Your task to perform on an android device: How much does a 3 bedroom apartment rent for in Washington DC? Image 0: 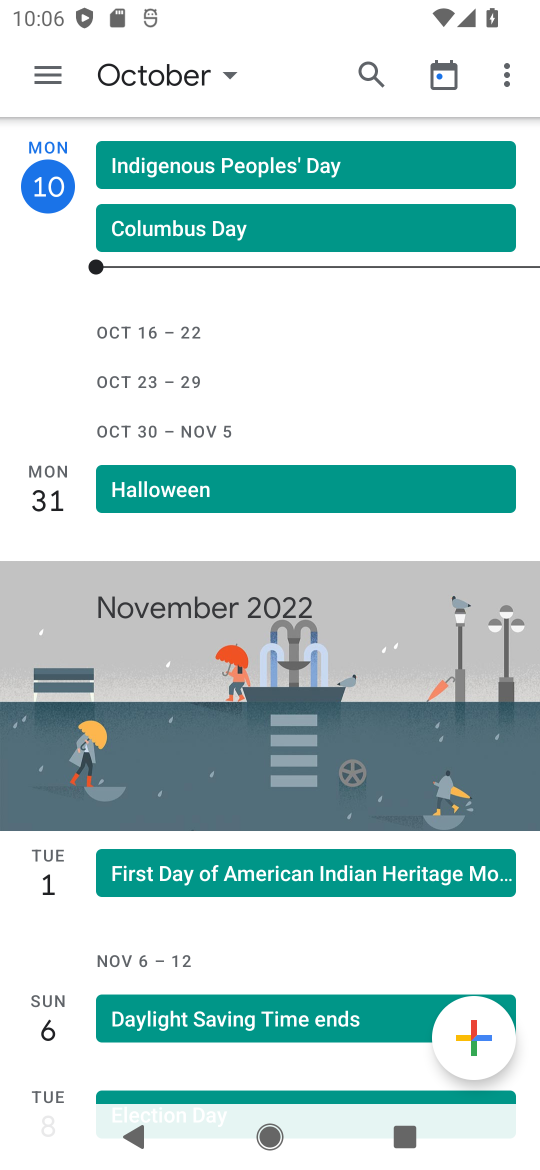
Step 0: press home button
Your task to perform on an android device: How much does a 3 bedroom apartment rent for in Washington DC? Image 1: 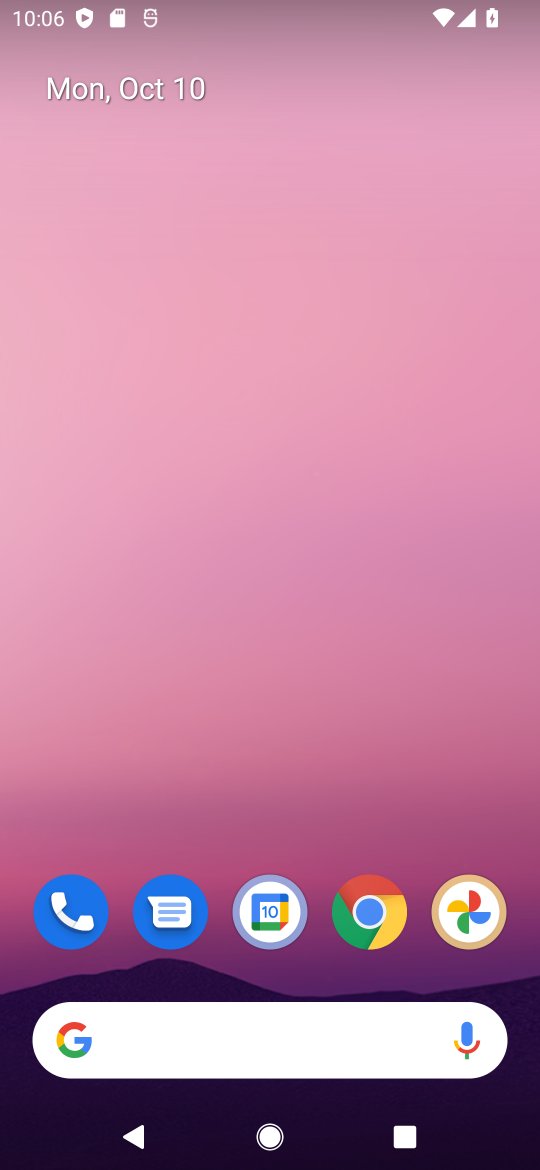
Step 1: click (71, 1037)
Your task to perform on an android device: How much does a 3 bedroom apartment rent for in Washington DC? Image 2: 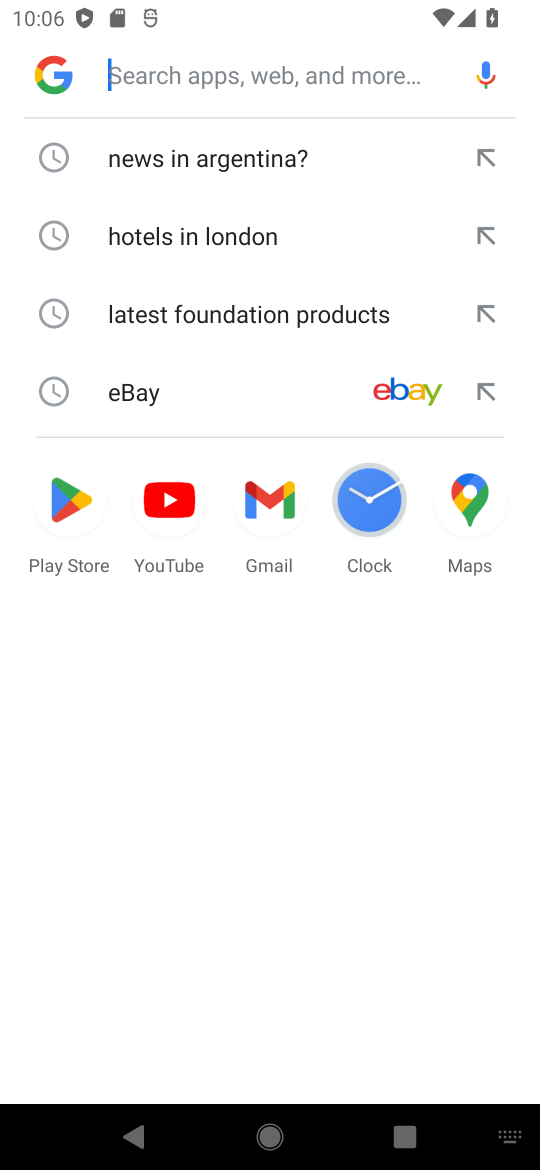
Step 2: click (224, 91)
Your task to perform on an android device: How much does a 3 bedroom apartment rent for in Washington DC? Image 3: 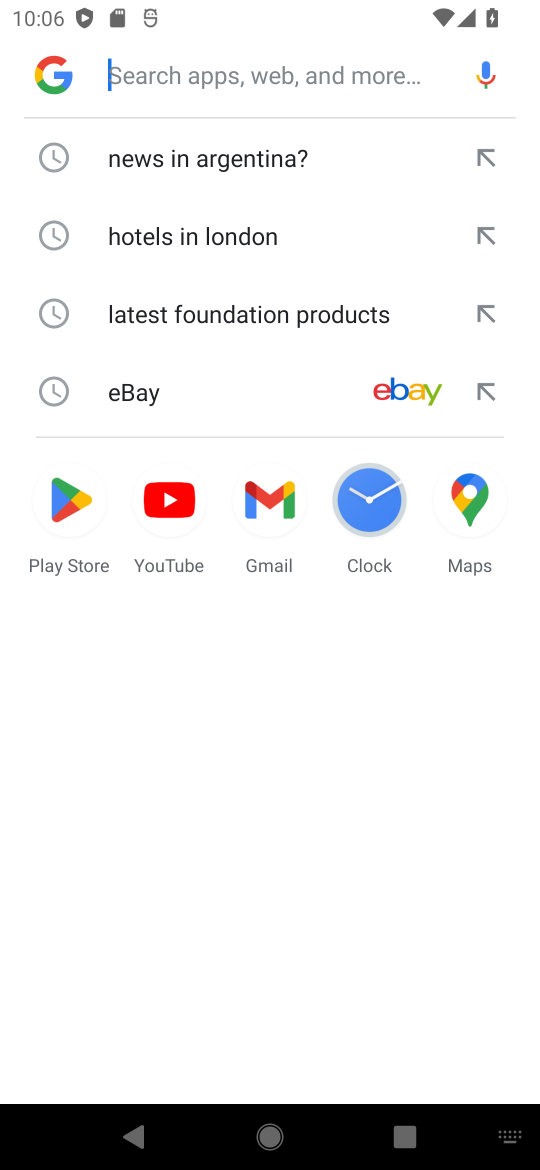
Step 3: type "how much does a 3 bedroom apartment rent for in washington dc ?"
Your task to perform on an android device: How much does a 3 bedroom apartment rent for in Washington DC? Image 4: 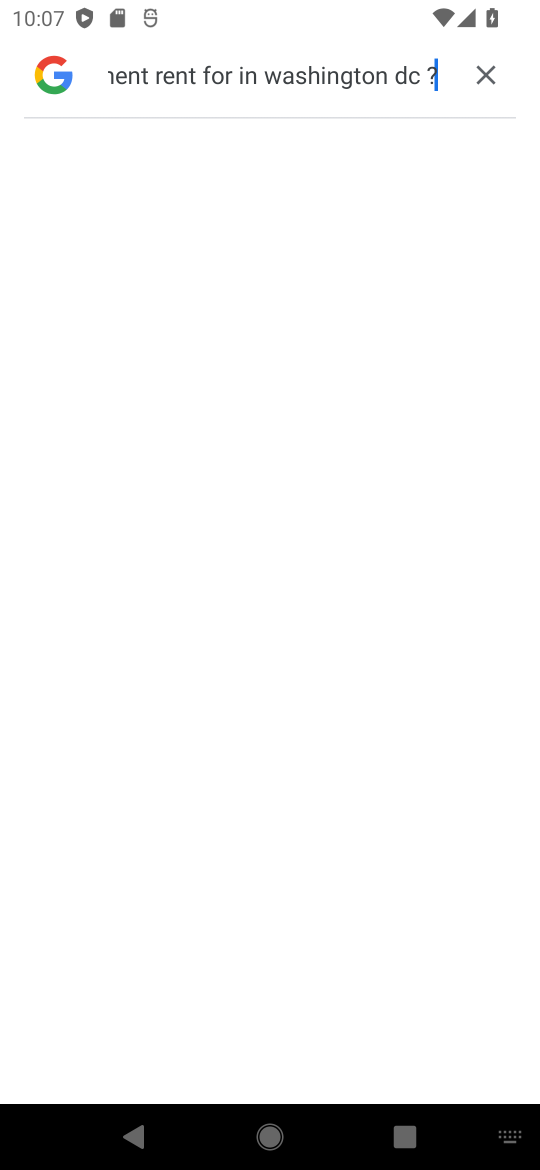
Step 4: task complete